Your task to perform on an android device: check out phone information Image 0: 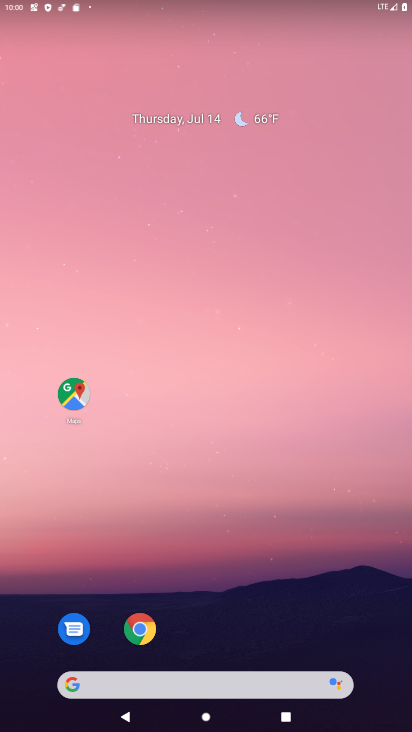
Step 0: press home button
Your task to perform on an android device: check out phone information Image 1: 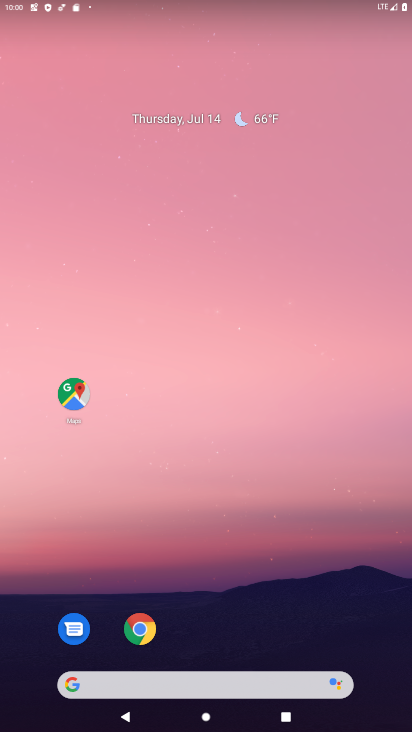
Step 1: drag from (297, 600) to (273, 262)
Your task to perform on an android device: check out phone information Image 2: 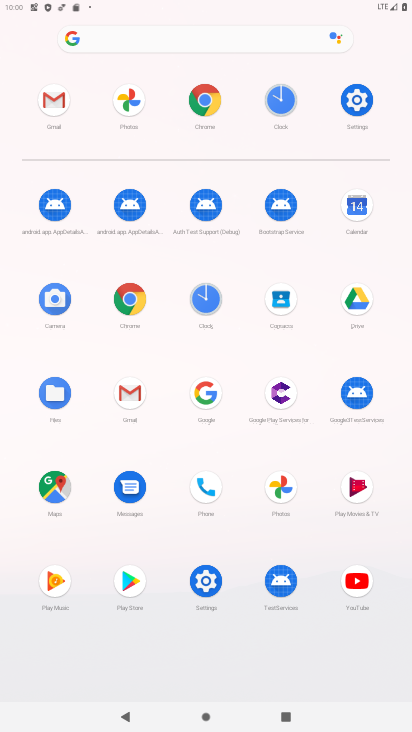
Step 2: click (359, 96)
Your task to perform on an android device: check out phone information Image 3: 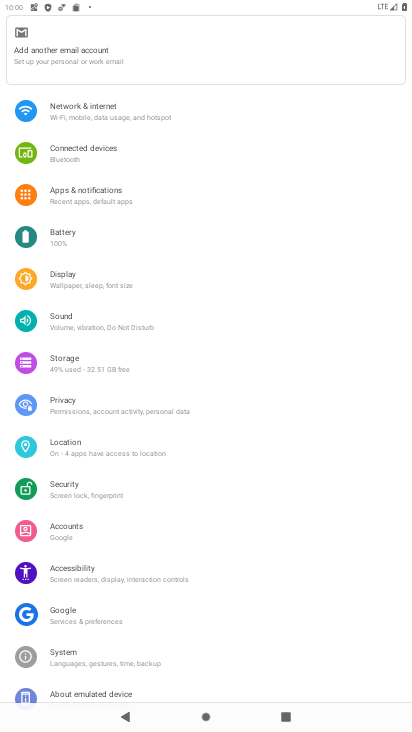
Step 3: click (87, 687)
Your task to perform on an android device: check out phone information Image 4: 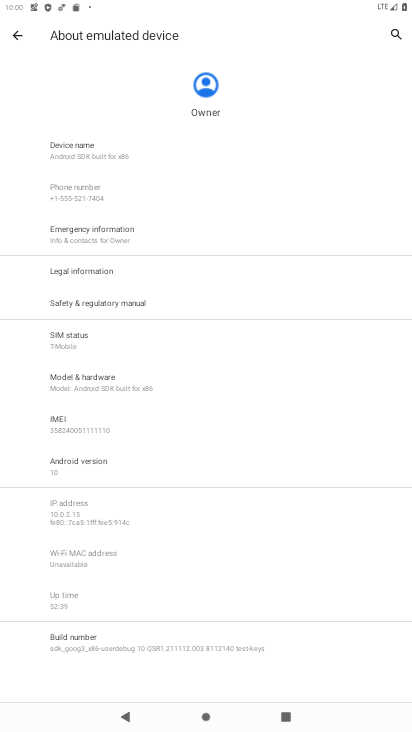
Step 4: task complete